Your task to perform on an android device: Show me popular videos on Youtube Image 0: 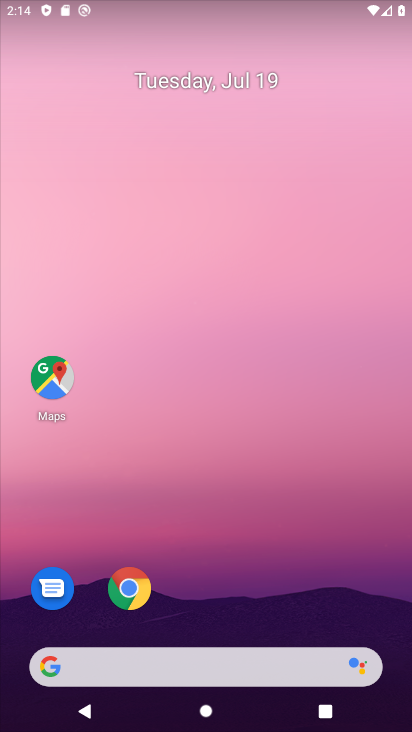
Step 0: drag from (186, 68) to (186, 4)
Your task to perform on an android device: Show me popular videos on Youtube Image 1: 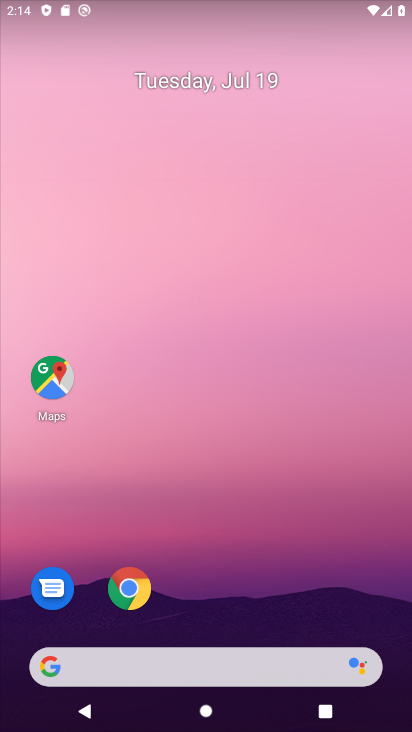
Step 1: drag from (193, 578) to (195, 78)
Your task to perform on an android device: Show me popular videos on Youtube Image 2: 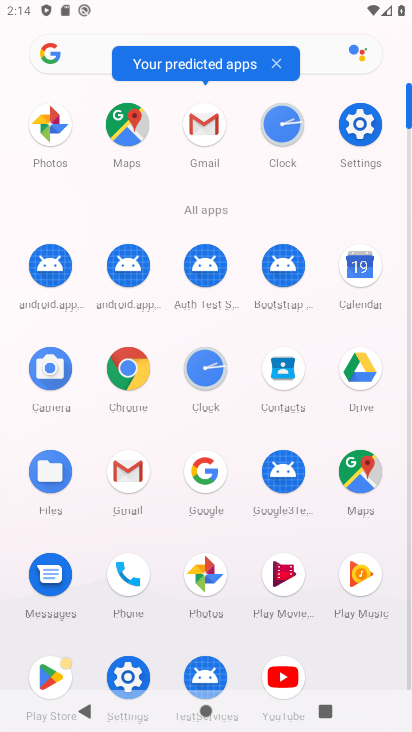
Step 2: click (280, 676)
Your task to perform on an android device: Show me popular videos on Youtube Image 3: 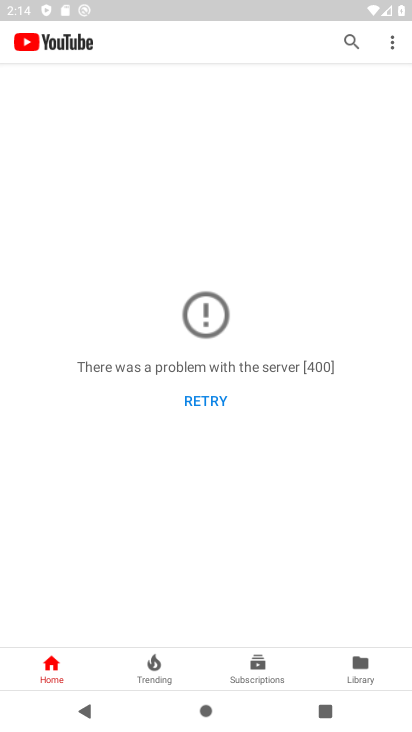
Step 3: click (354, 666)
Your task to perform on an android device: Show me popular videos on Youtube Image 4: 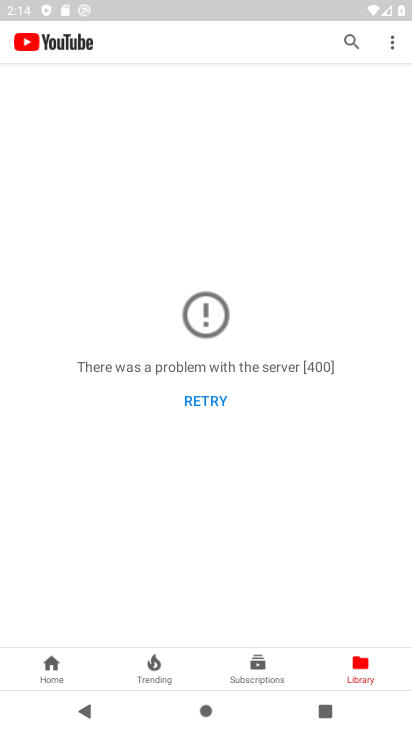
Step 4: task complete